Your task to perform on an android device: Open calendar and show me the first week of next month Image 0: 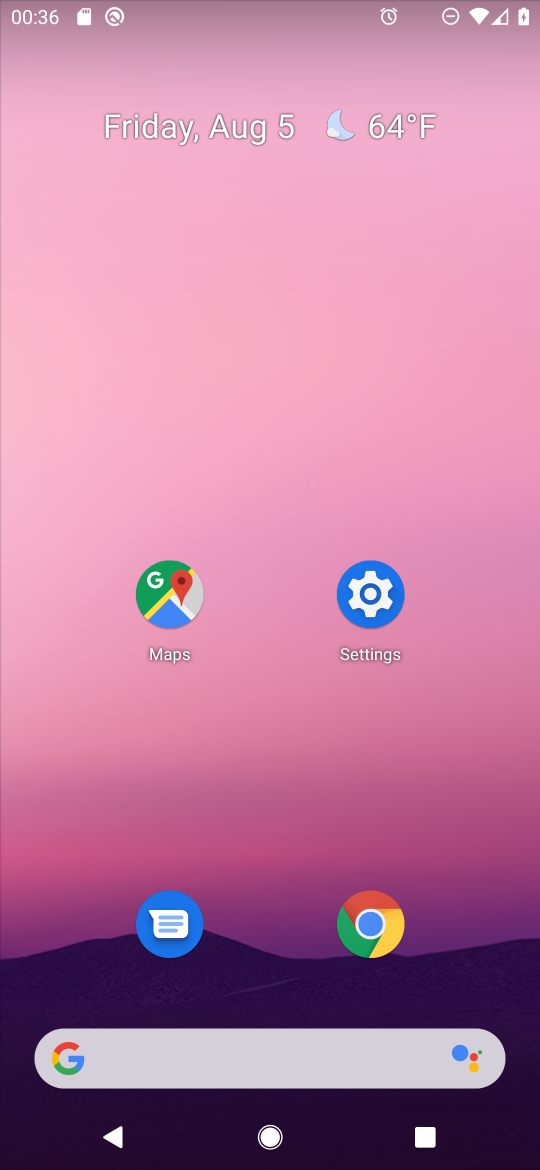
Step 0: press home button
Your task to perform on an android device: Open calendar and show me the first week of next month Image 1: 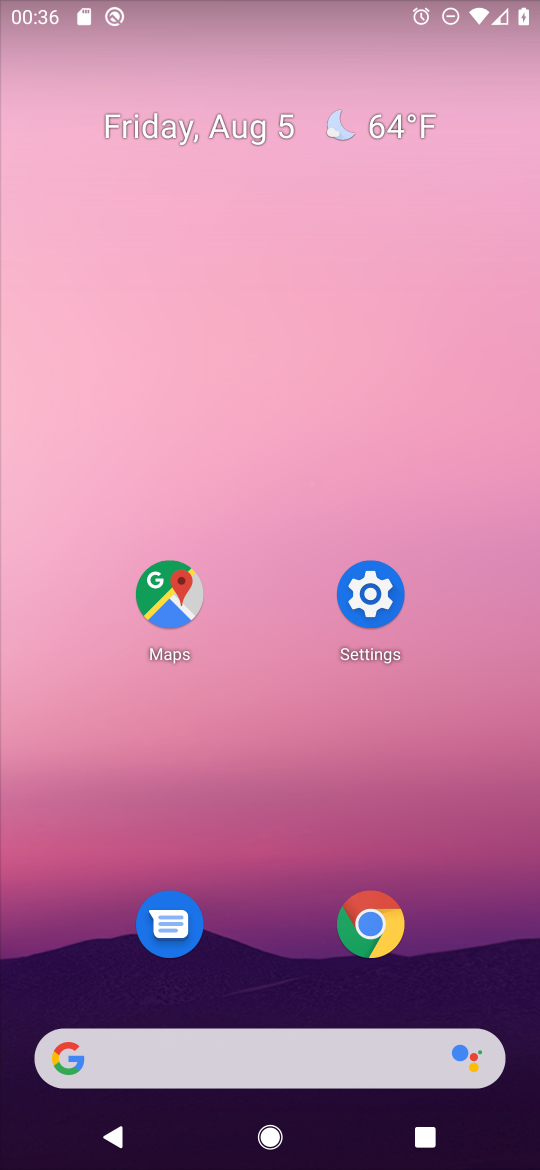
Step 1: drag from (243, 1062) to (377, 220)
Your task to perform on an android device: Open calendar and show me the first week of next month Image 2: 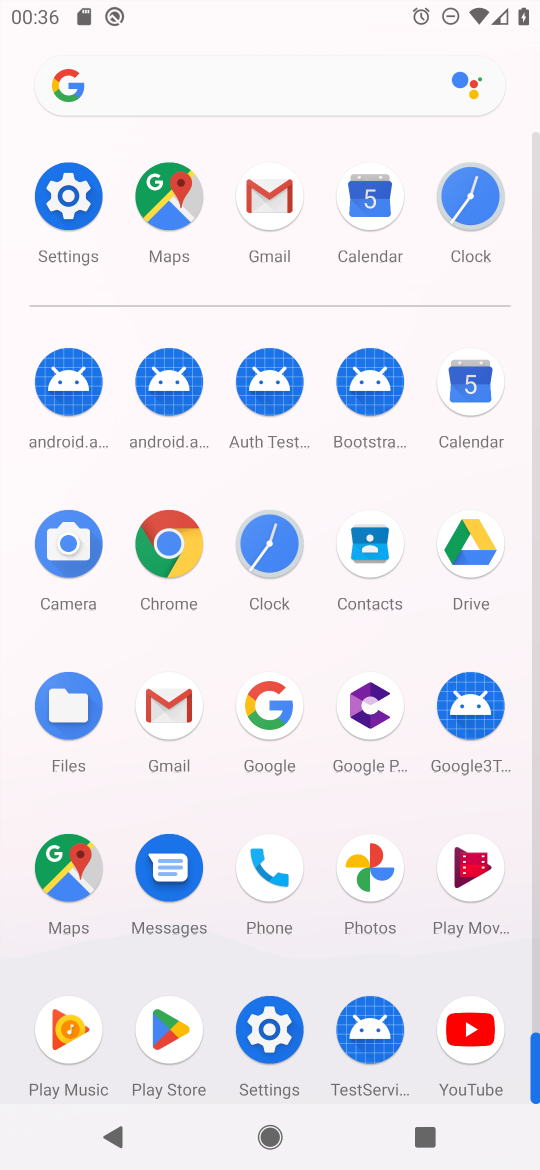
Step 2: click (474, 391)
Your task to perform on an android device: Open calendar and show me the first week of next month Image 3: 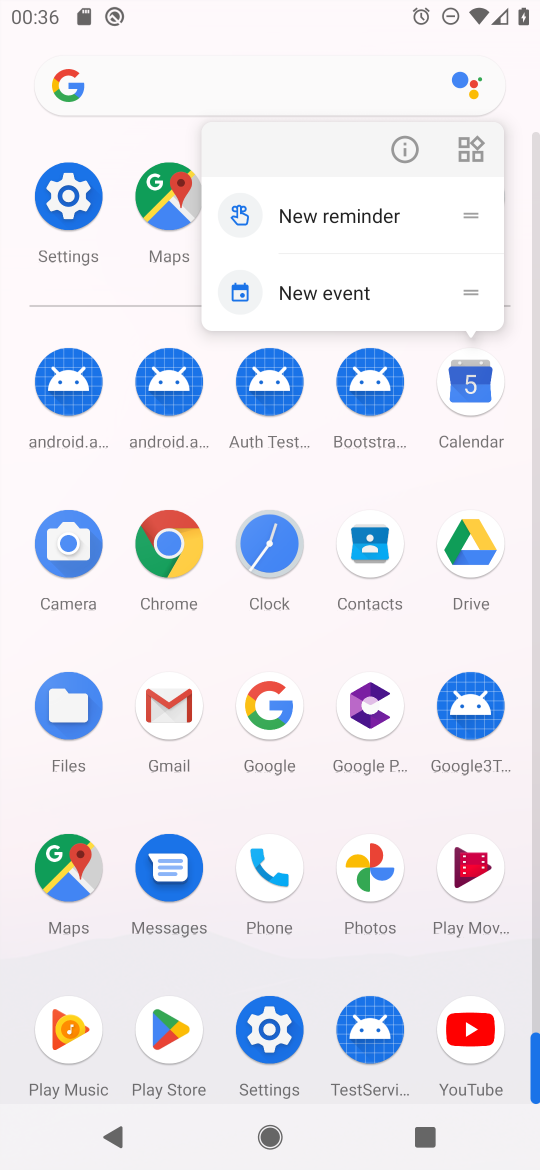
Step 3: click (474, 393)
Your task to perform on an android device: Open calendar and show me the first week of next month Image 4: 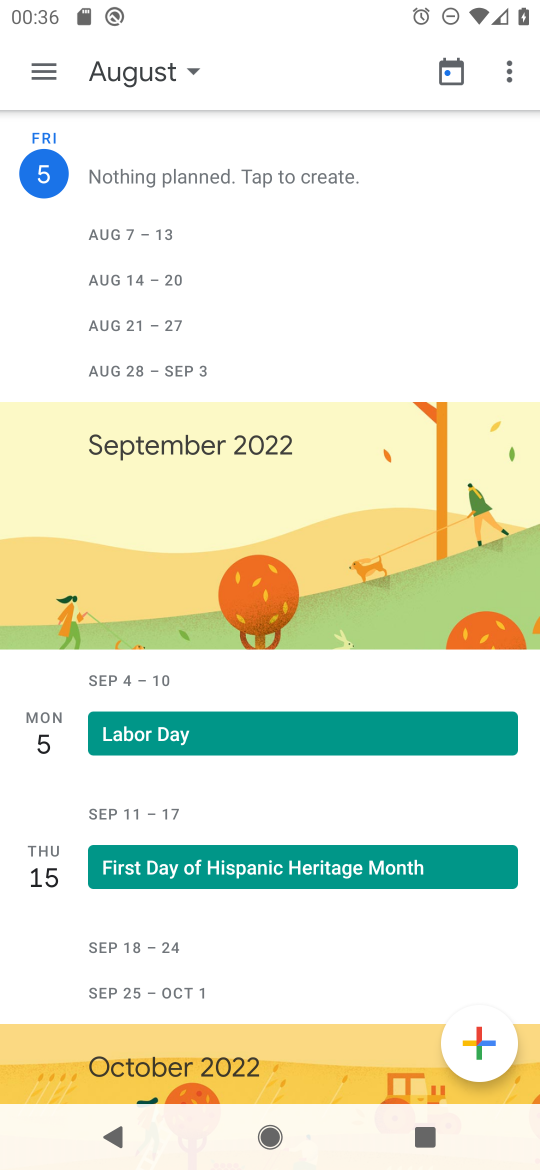
Step 4: click (138, 81)
Your task to perform on an android device: Open calendar and show me the first week of next month Image 5: 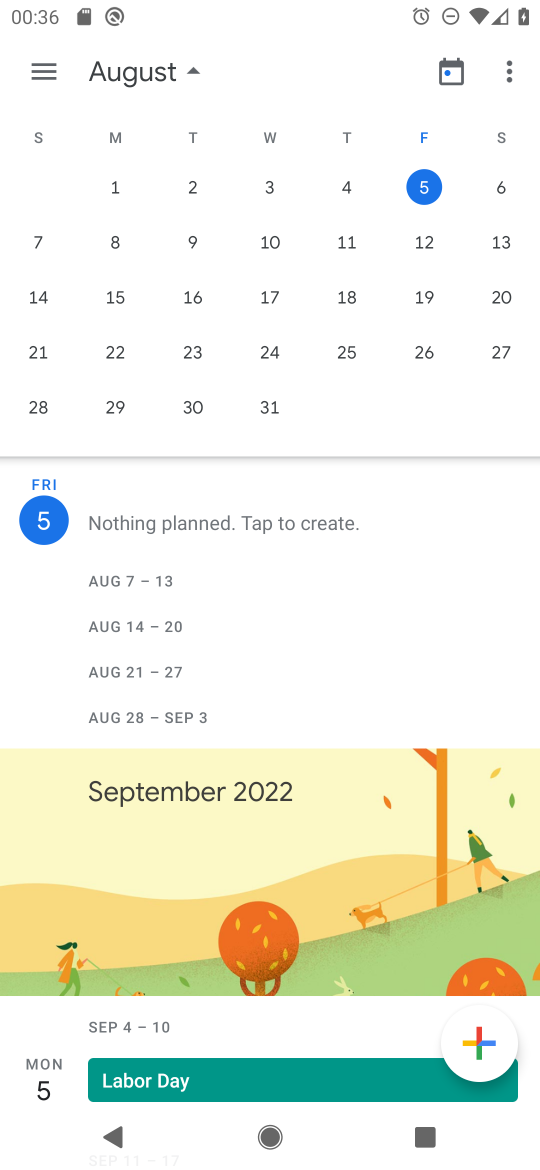
Step 5: drag from (495, 312) to (9, 454)
Your task to perform on an android device: Open calendar and show me the first week of next month Image 6: 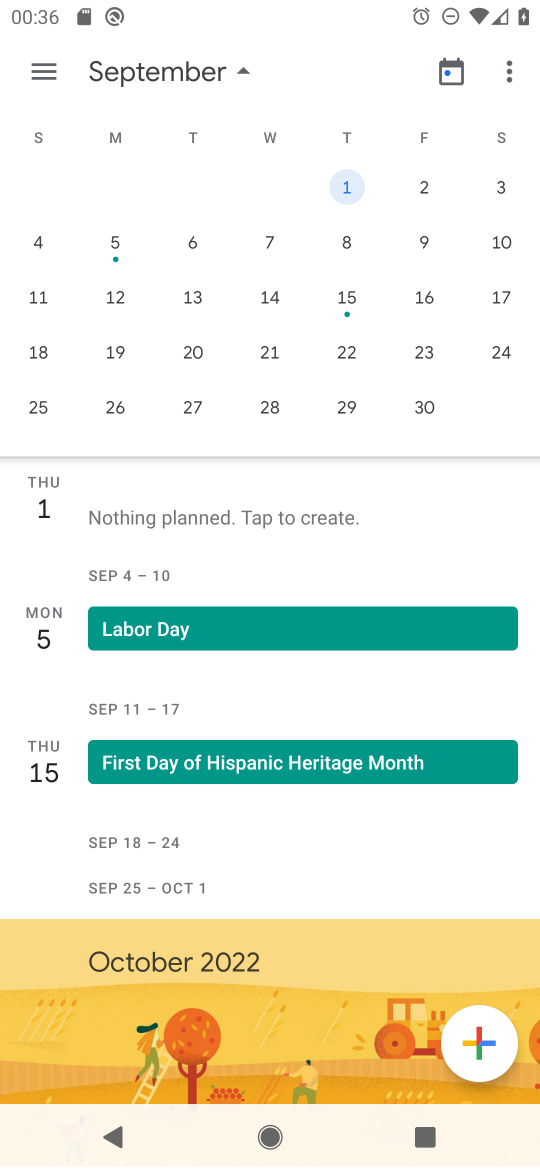
Step 6: click (351, 182)
Your task to perform on an android device: Open calendar and show me the first week of next month Image 7: 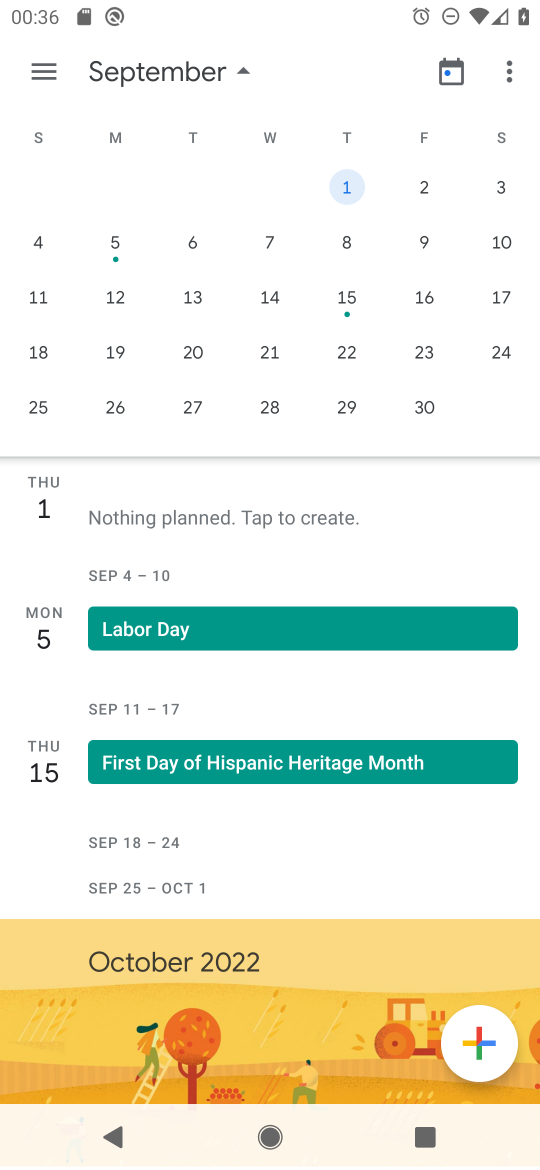
Step 7: click (55, 78)
Your task to perform on an android device: Open calendar and show me the first week of next month Image 8: 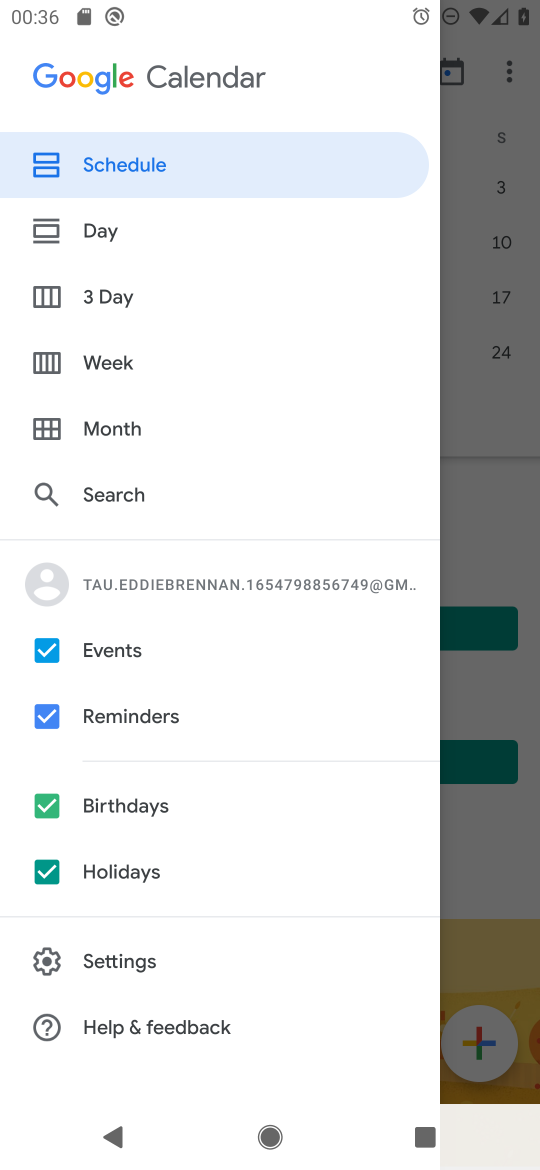
Step 8: click (116, 363)
Your task to perform on an android device: Open calendar and show me the first week of next month Image 9: 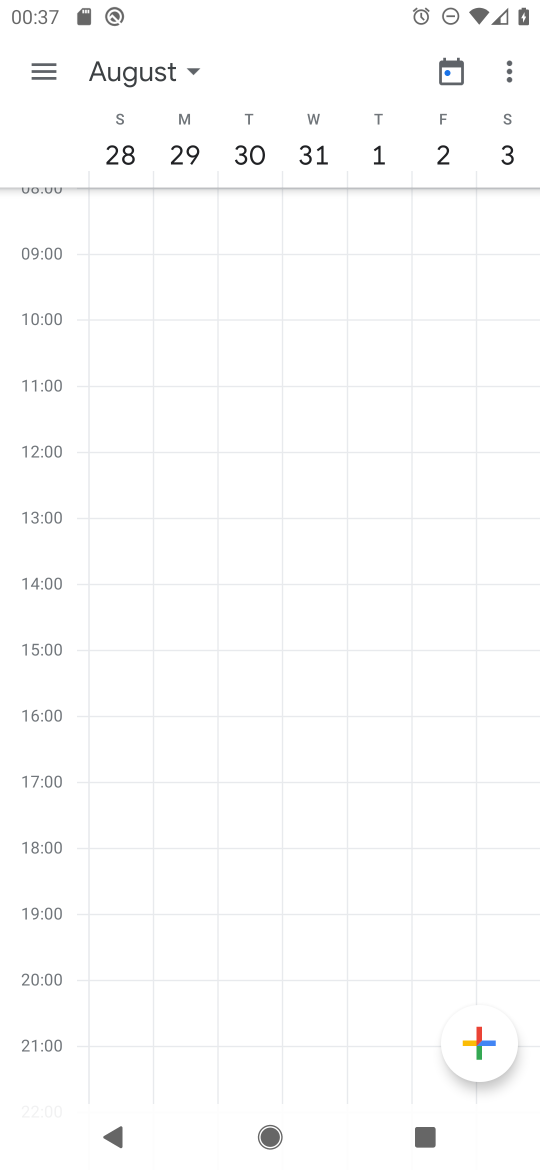
Step 9: task complete